Your task to perform on an android device: What's on my calendar today? Image 0: 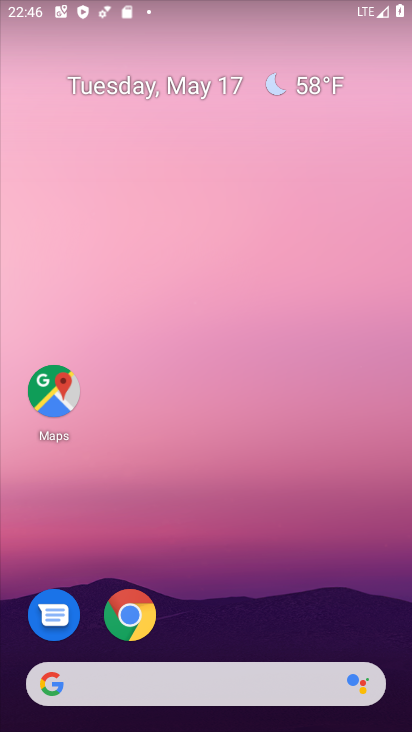
Step 0: drag from (194, 639) to (191, 338)
Your task to perform on an android device: What's on my calendar today? Image 1: 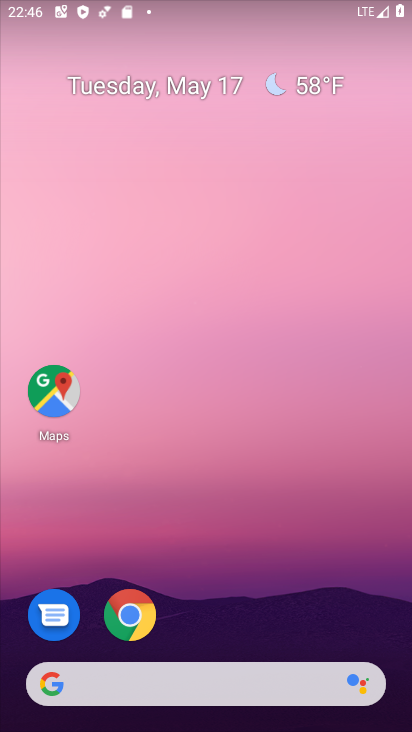
Step 1: drag from (236, 635) to (185, 121)
Your task to perform on an android device: What's on my calendar today? Image 2: 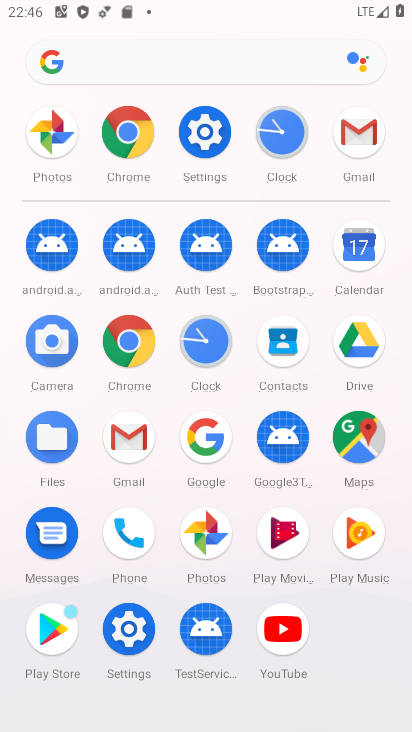
Step 2: click (354, 274)
Your task to perform on an android device: What's on my calendar today? Image 3: 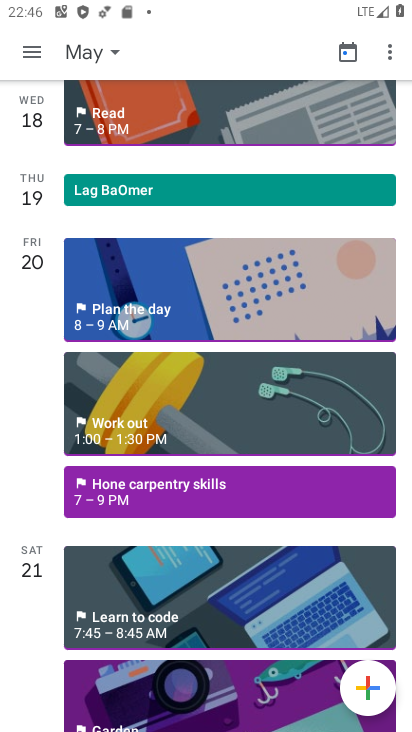
Step 3: click (104, 47)
Your task to perform on an android device: What's on my calendar today? Image 4: 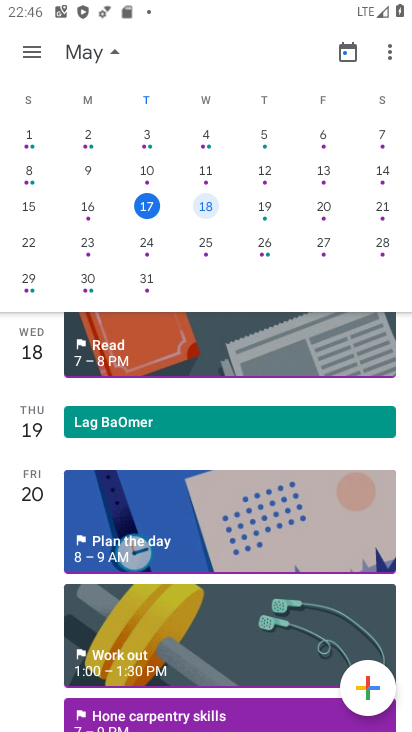
Step 4: click (150, 199)
Your task to perform on an android device: What's on my calendar today? Image 5: 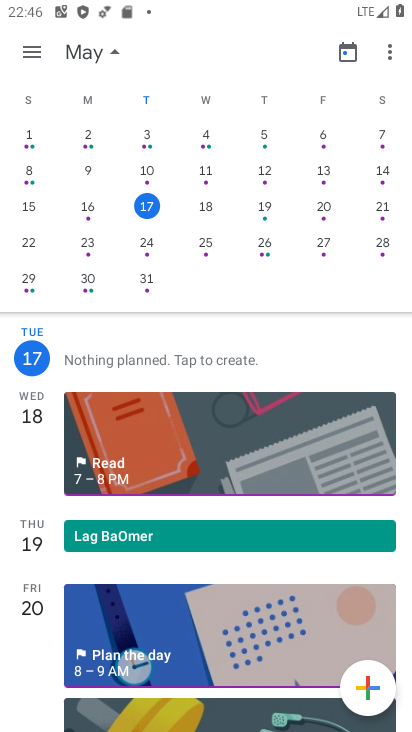
Step 5: click (198, 204)
Your task to perform on an android device: What's on my calendar today? Image 6: 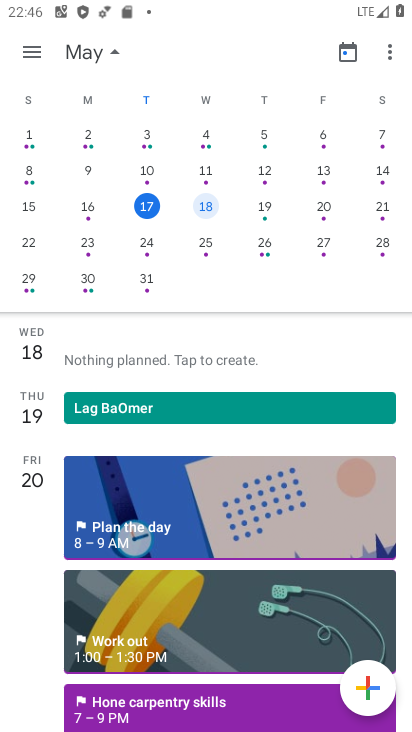
Step 6: click (156, 211)
Your task to perform on an android device: What's on my calendar today? Image 7: 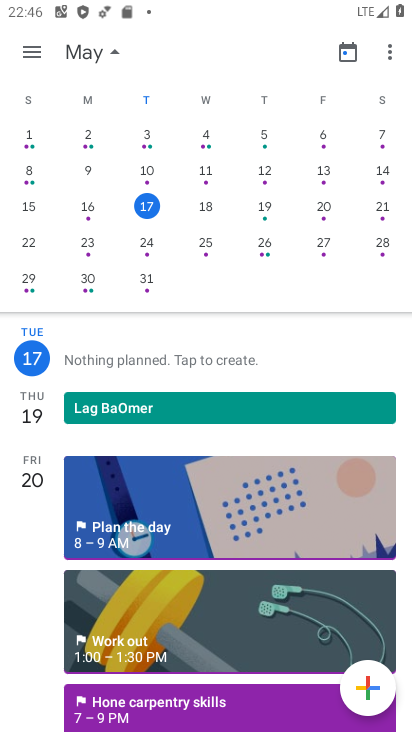
Step 7: task complete